Your task to perform on an android device: Go to Amazon Image 0: 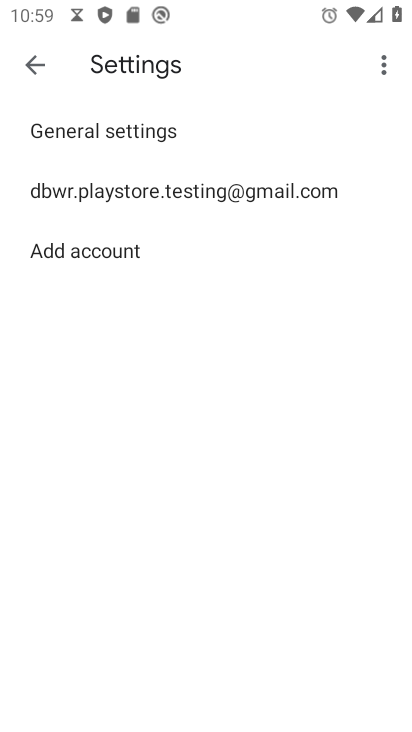
Step 0: press home button
Your task to perform on an android device: Go to Amazon Image 1: 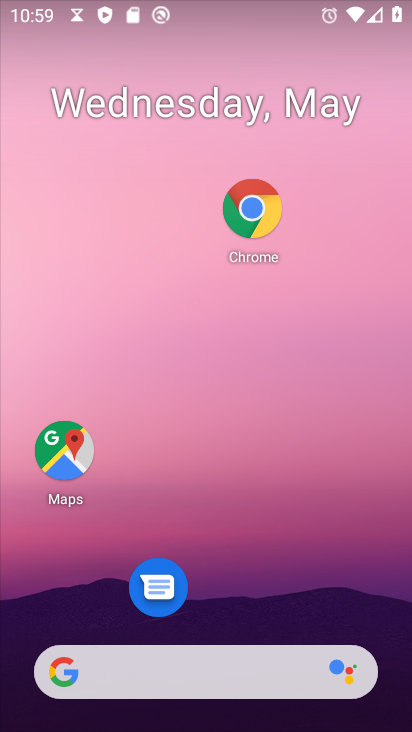
Step 1: click (265, 242)
Your task to perform on an android device: Go to Amazon Image 2: 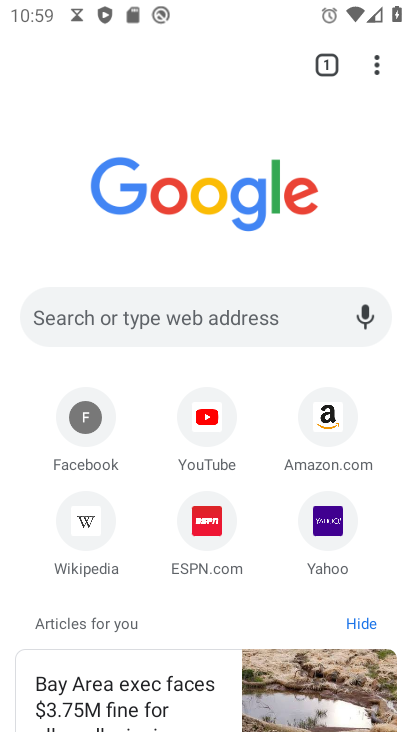
Step 2: click (307, 441)
Your task to perform on an android device: Go to Amazon Image 3: 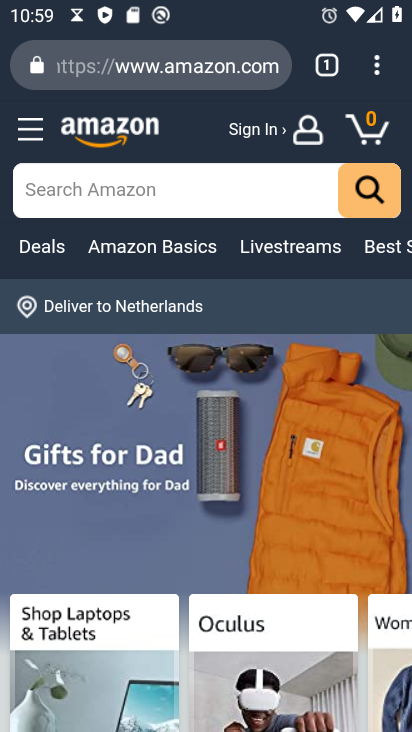
Step 3: task complete